Your task to perform on an android device: turn off translation in the chrome app Image 0: 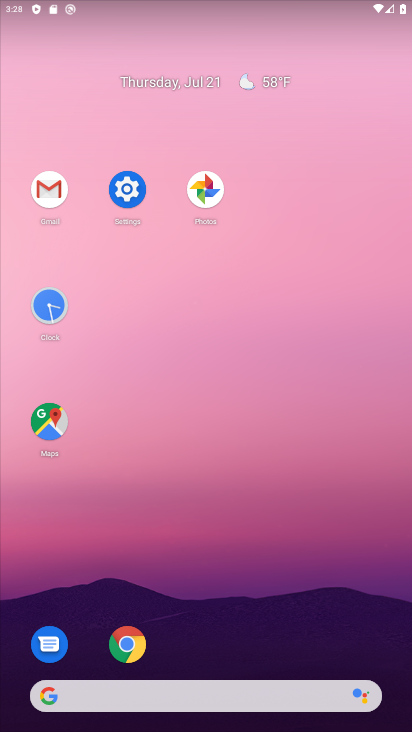
Step 0: click (132, 642)
Your task to perform on an android device: turn off translation in the chrome app Image 1: 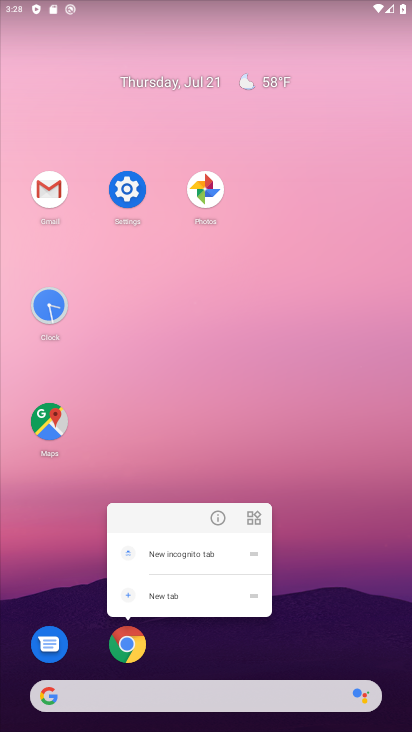
Step 1: click (122, 641)
Your task to perform on an android device: turn off translation in the chrome app Image 2: 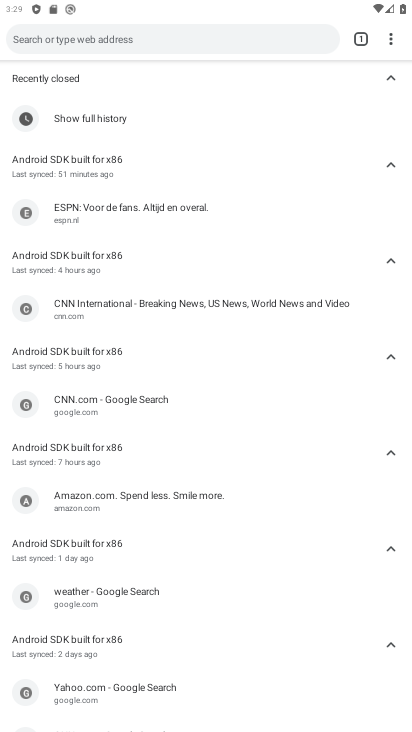
Step 2: click (392, 37)
Your task to perform on an android device: turn off translation in the chrome app Image 3: 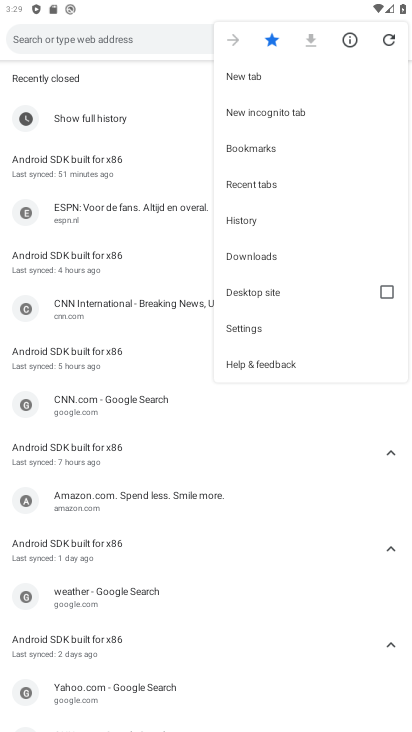
Step 3: click (282, 323)
Your task to perform on an android device: turn off translation in the chrome app Image 4: 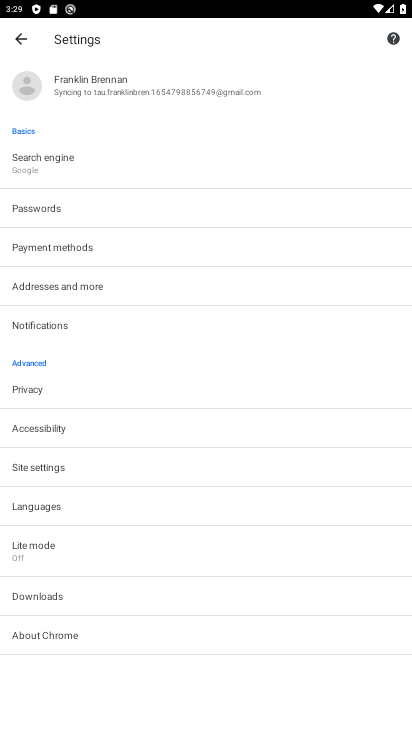
Step 4: click (100, 511)
Your task to perform on an android device: turn off translation in the chrome app Image 5: 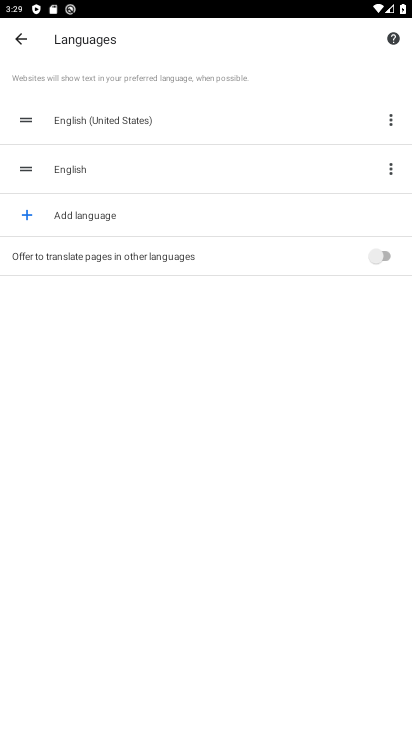
Step 5: task complete